Your task to perform on an android device: add a contact in the contacts app Image 0: 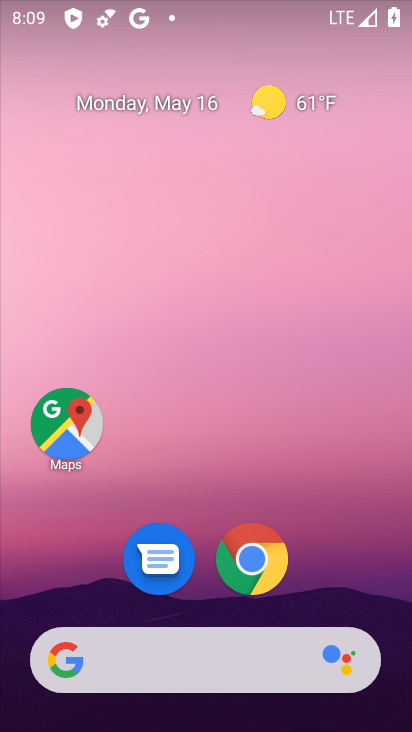
Step 0: drag from (209, 485) to (274, 177)
Your task to perform on an android device: add a contact in the contacts app Image 1: 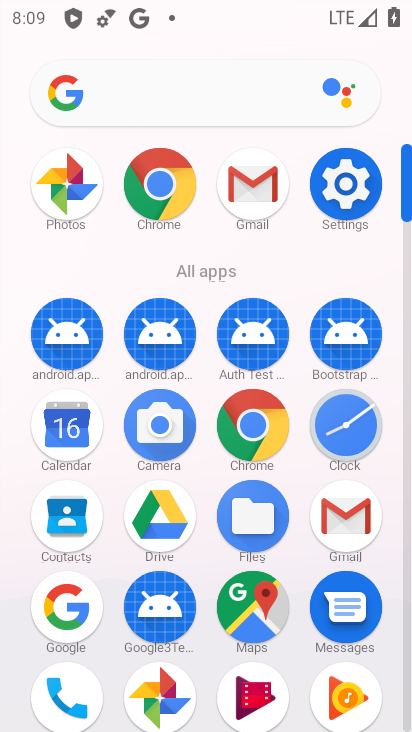
Step 1: click (72, 516)
Your task to perform on an android device: add a contact in the contacts app Image 2: 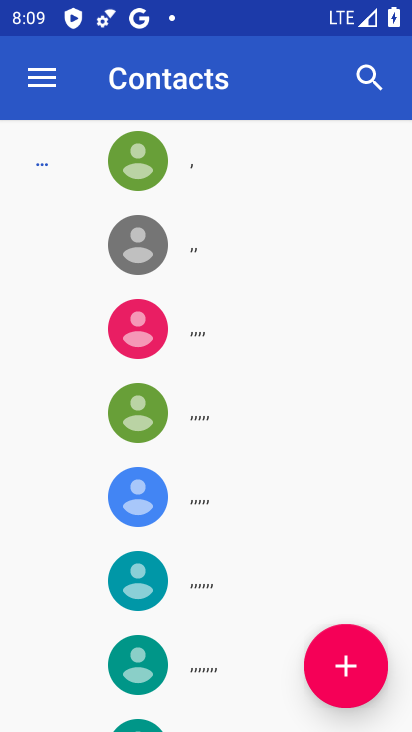
Step 2: click (324, 667)
Your task to perform on an android device: add a contact in the contacts app Image 3: 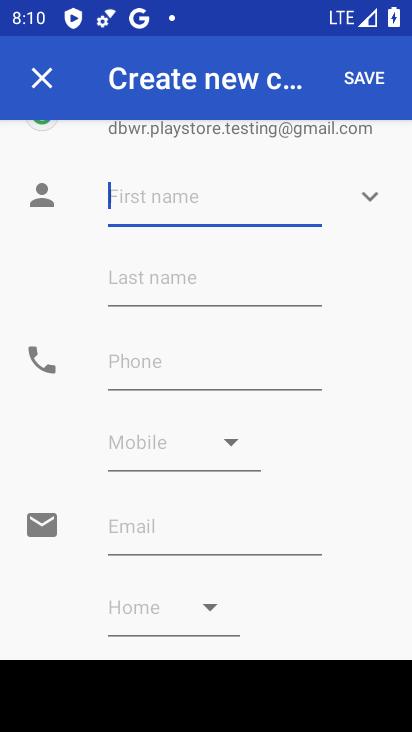
Step 3: click (132, 192)
Your task to perform on an android device: add a contact in the contacts app Image 4: 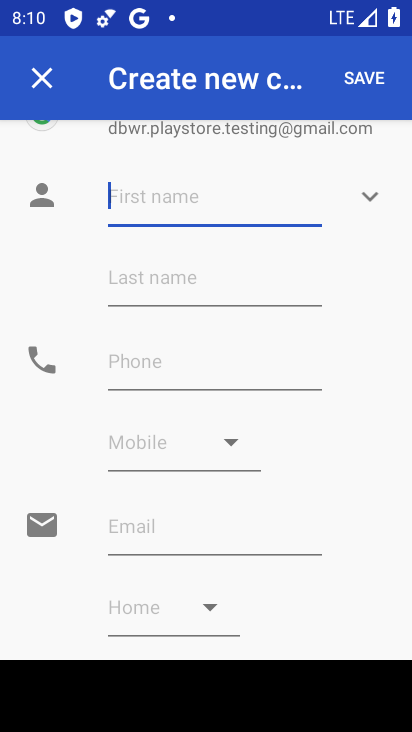
Step 4: type "cvfv"
Your task to perform on an android device: add a contact in the contacts app Image 5: 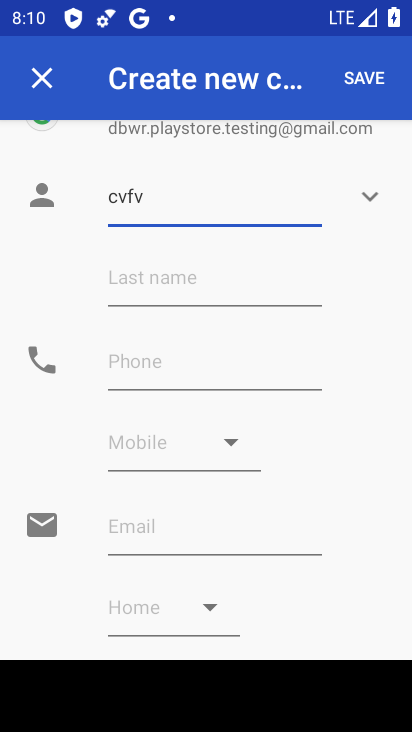
Step 5: click (137, 345)
Your task to perform on an android device: add a contact in the contacts app Image 6: 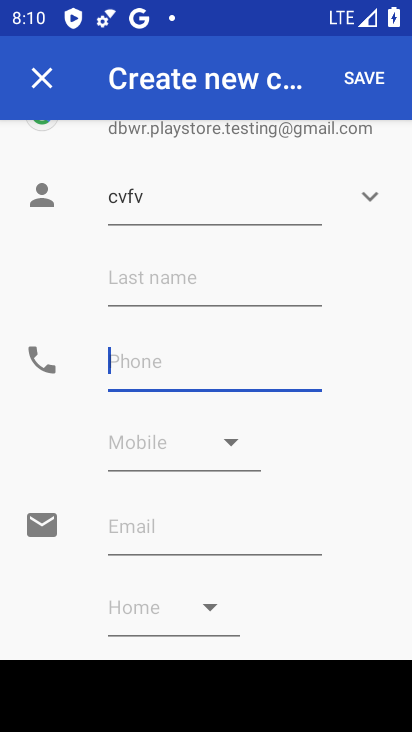
Step 6: type "5665"
Your task to perform on an android device: add a contact in the contacts app Image 7: 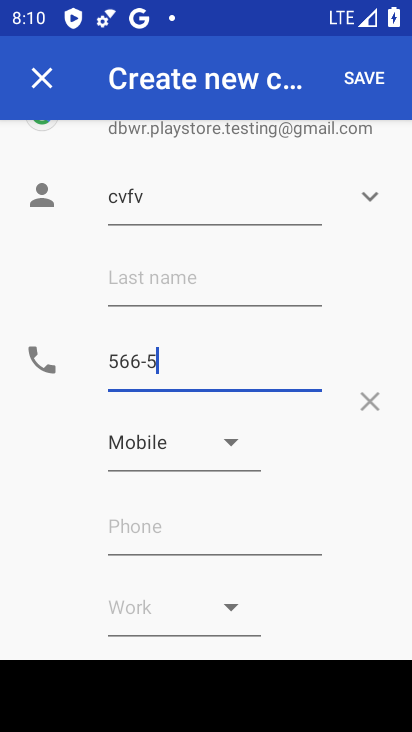
Step 7: click (360, 80)
Your task to perform on an android device: add a contact in the contacts app Image 8: 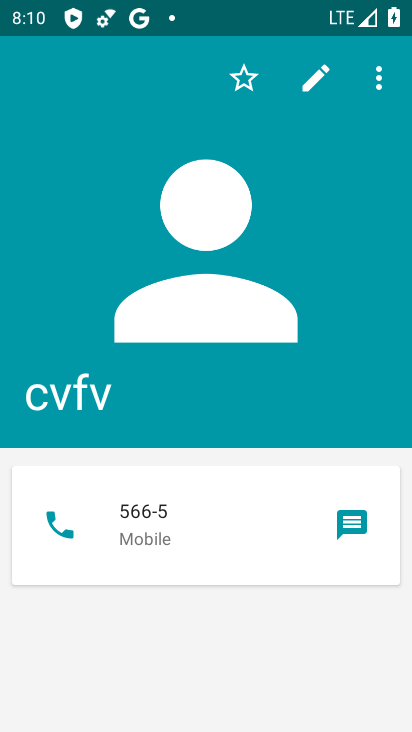
Step 8: task complete